Your task to perform on an android device: open sync settings in chrome Image 0: 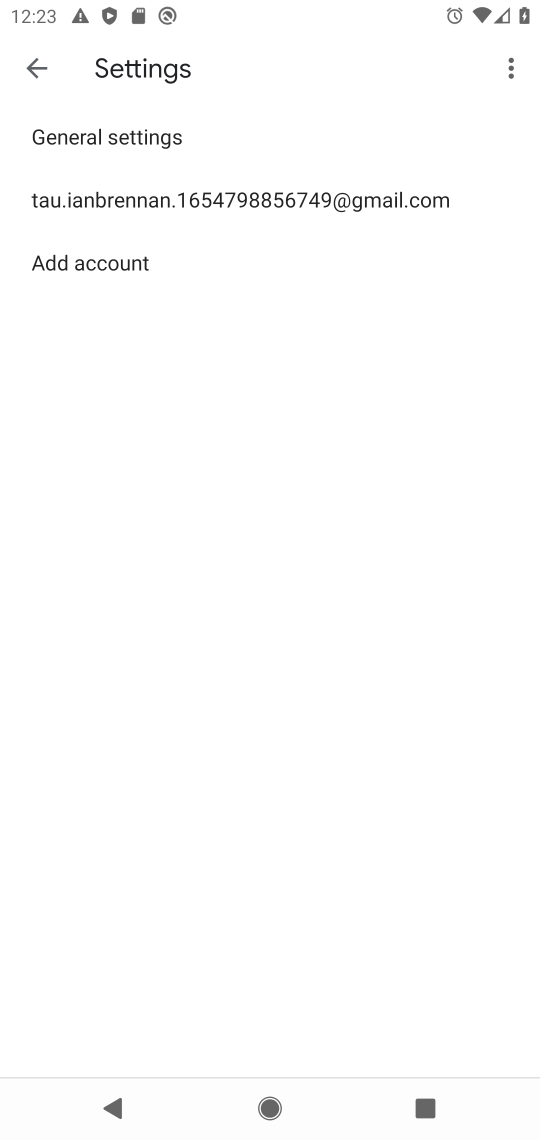
Step 0: press home button
Your task to perform on an android device: open sync settings in chrome Image 1: 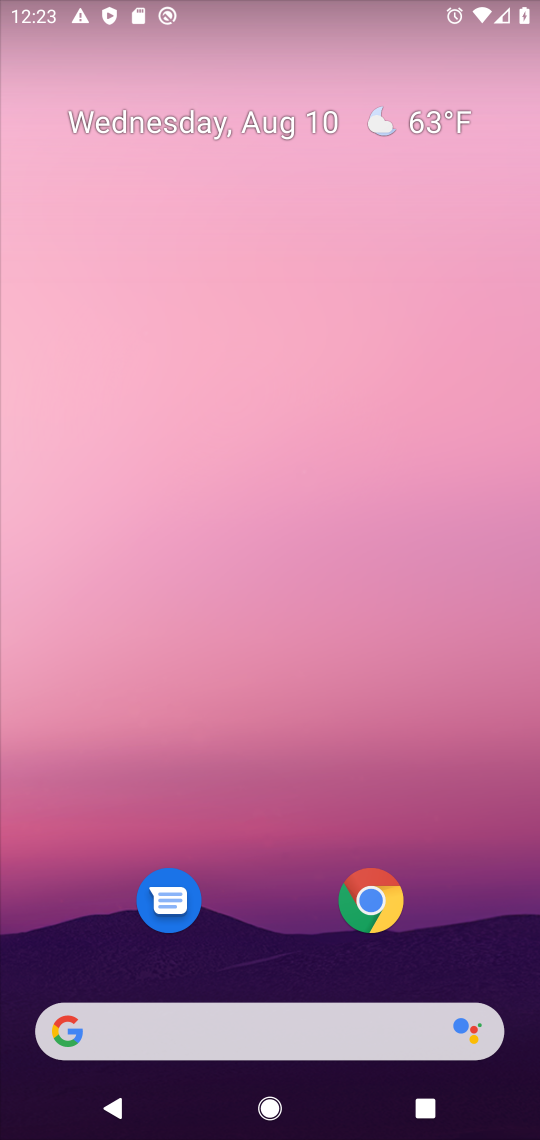
Step 1: click (376, 900)
Your task to perform on an android device: open sync settings in chrome Image 2: 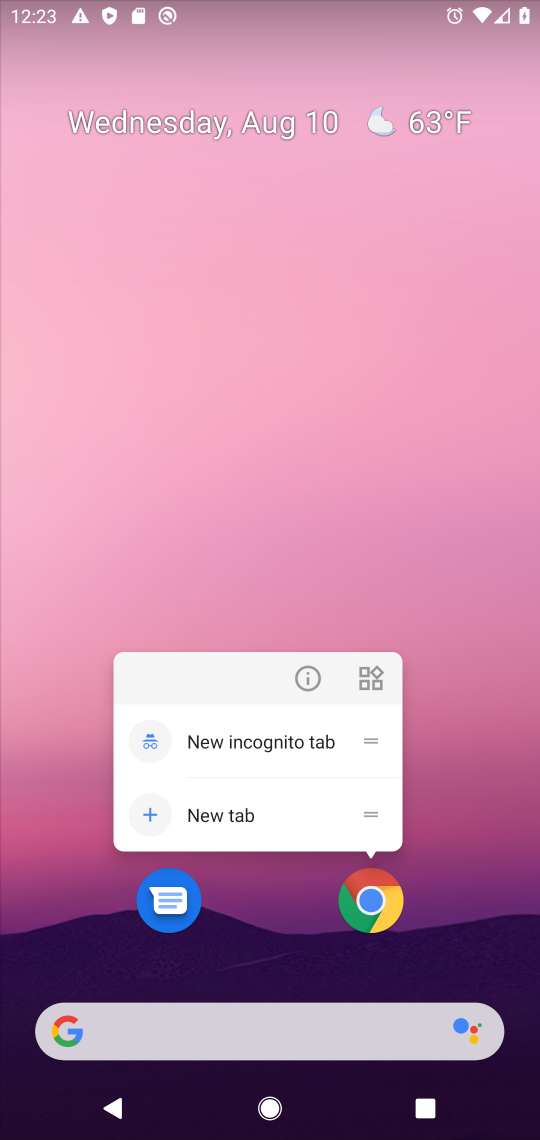
Step 2: click (376, 900)
Your task to perform on an android device: open sync settings in chrome Image 3: 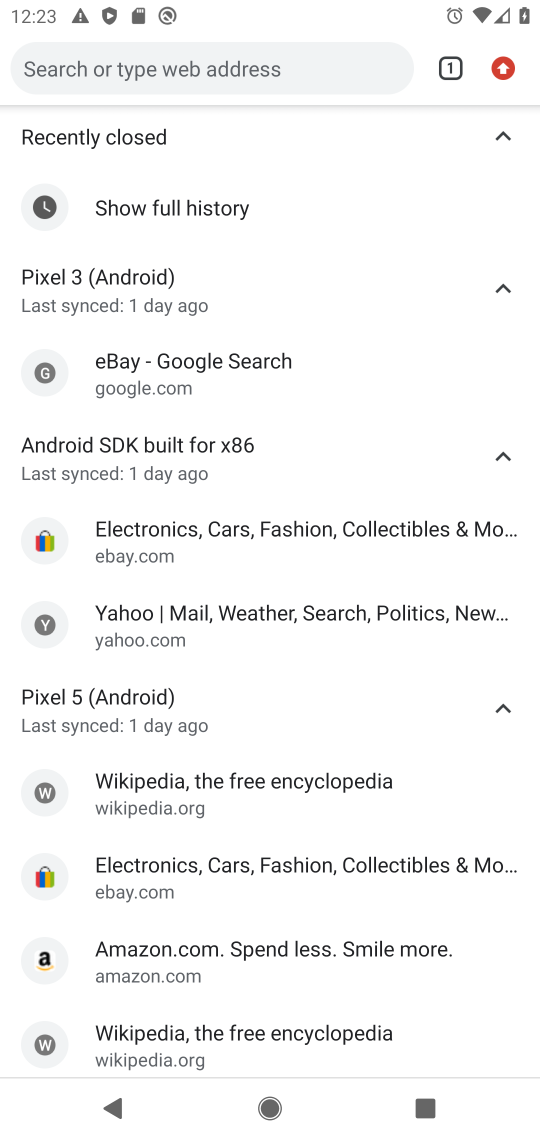
Step 3: click (503, 68)
Your task to perform on an android device: open sync settings in chrome Image 4: 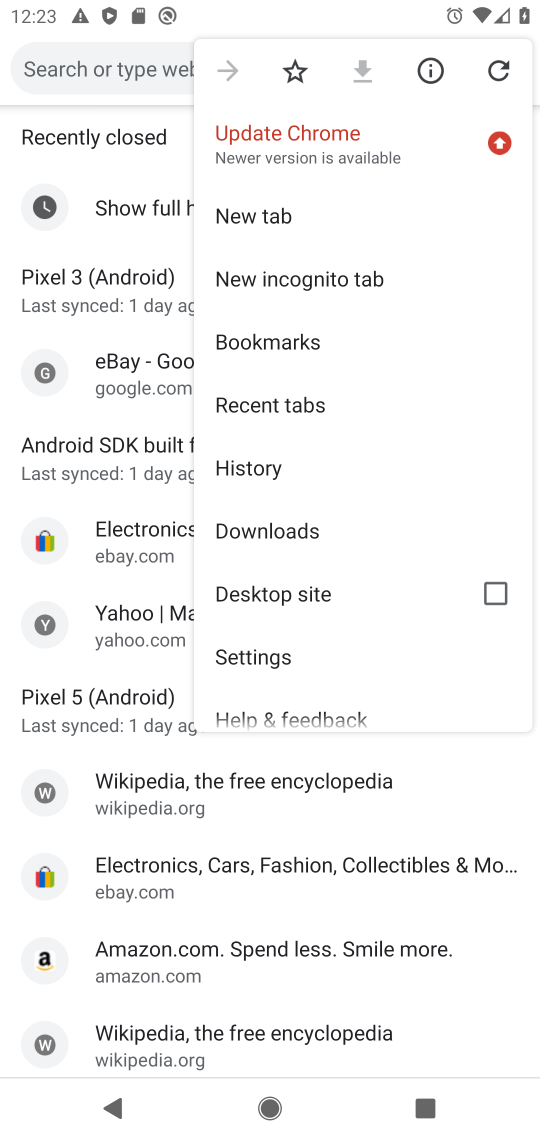
Step 4: click (292, 655)
Your task to perform on an android device: open sync settings in chrome Image 5: 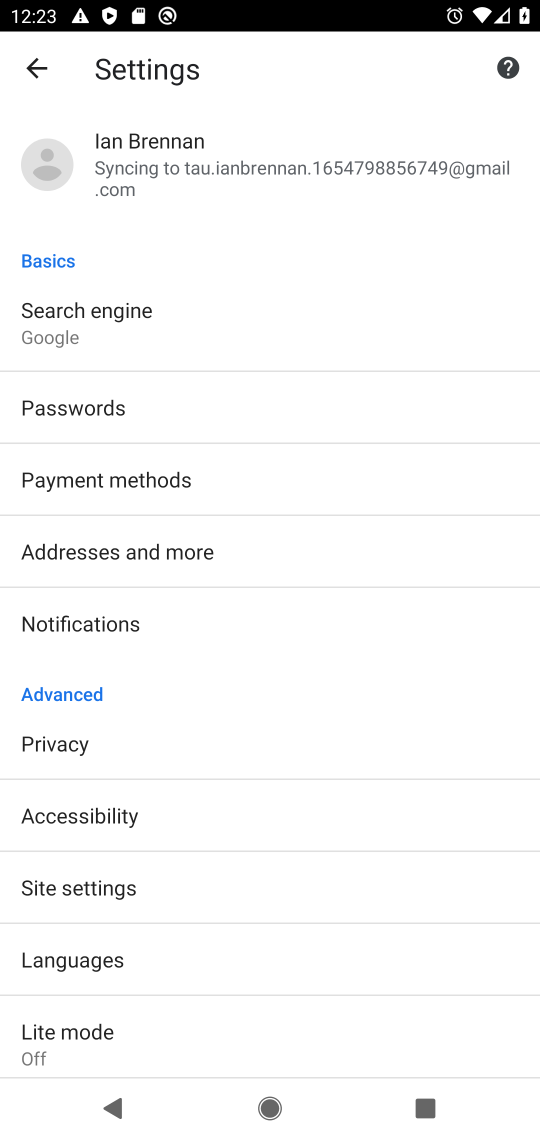
Step 5: click (285, 160)
Your task to perform on an android device: open sync settings in chrome Image 6: 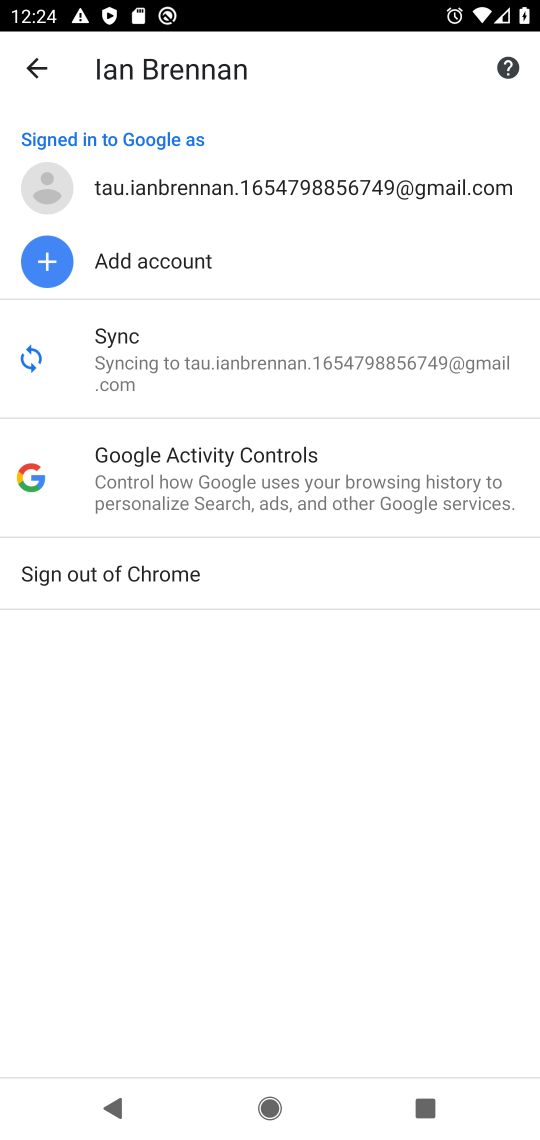
Step 6: click (287, 346)
Your task to perform on an android device: open sync settings in chrome Image 7: 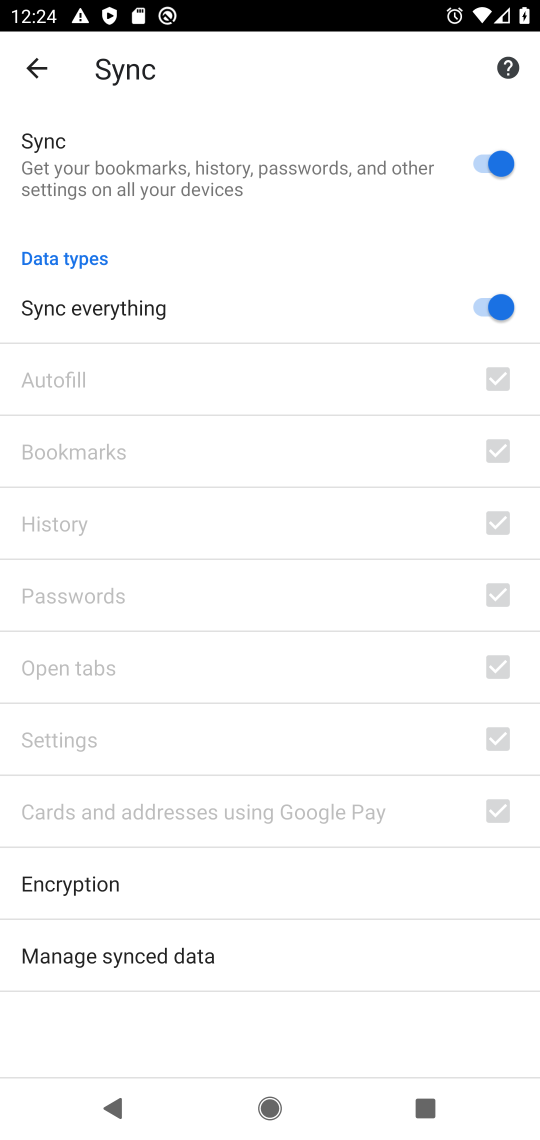
Step 7: task complete